Your task to perform on an android device: Open Google Chrome Image 0: 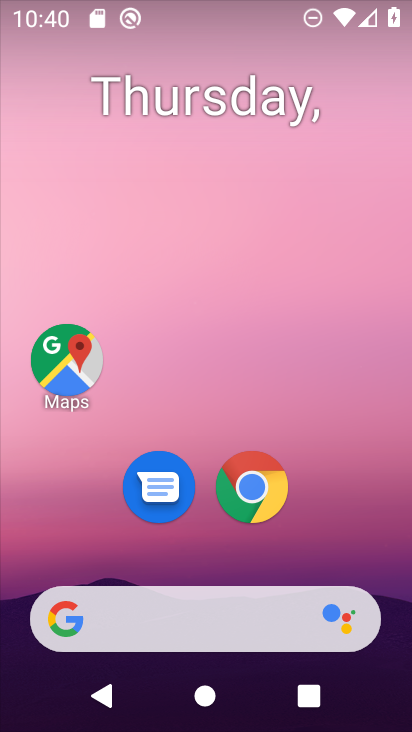
Step 0: click (254, 502)
Your task to perform on an android device: Open Google Chrome Image 1: 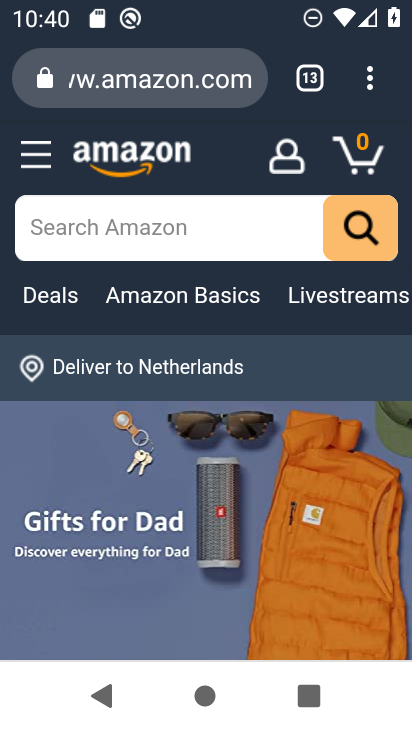
Step 1: task complete